Your task to perform on an android device: open app "ZOOM Cloud Meetings" (install if not already installed) Image 0: 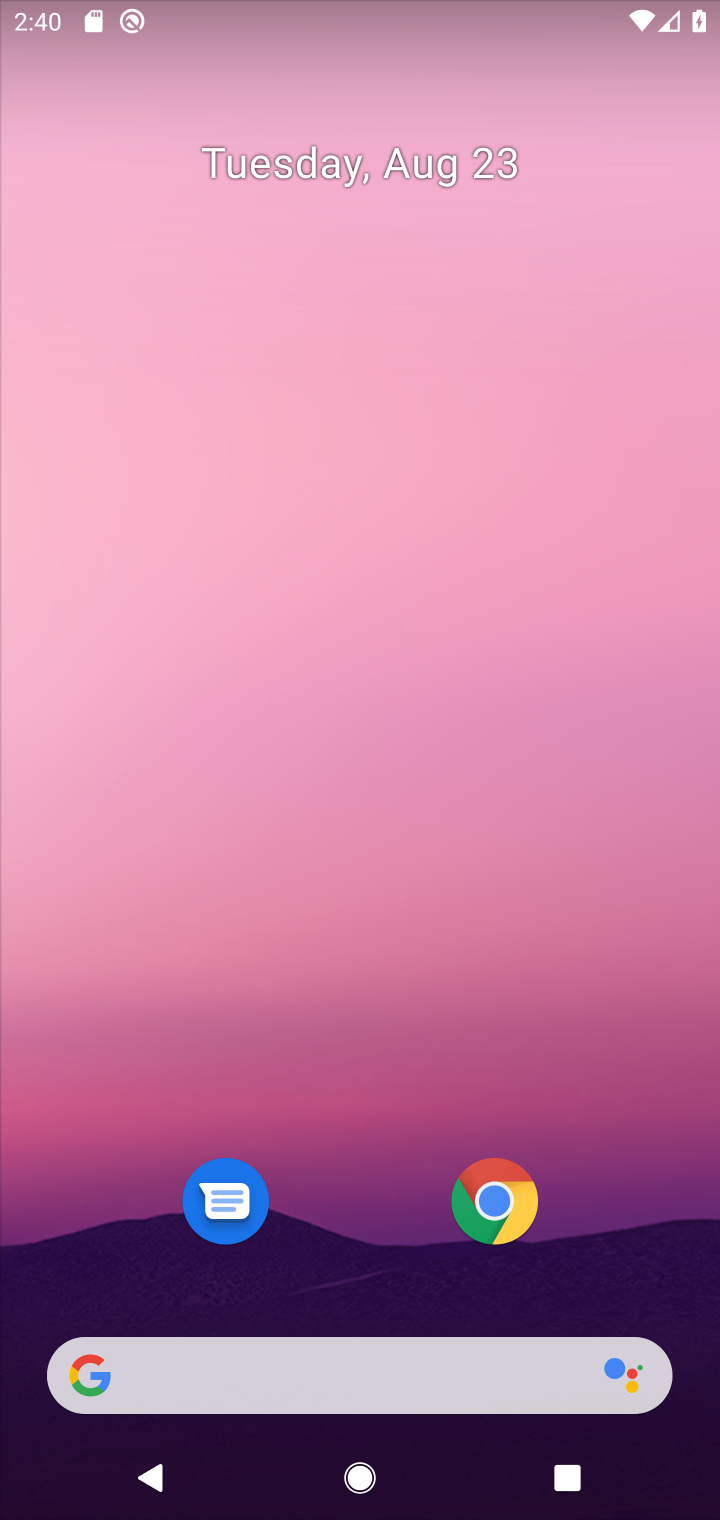
Step 0: drag from (642, 1084) to (580, 489)
Your task to perform on an android device: open app "ZOOM Cloud Meetings" (install if not already installed) Image 1: 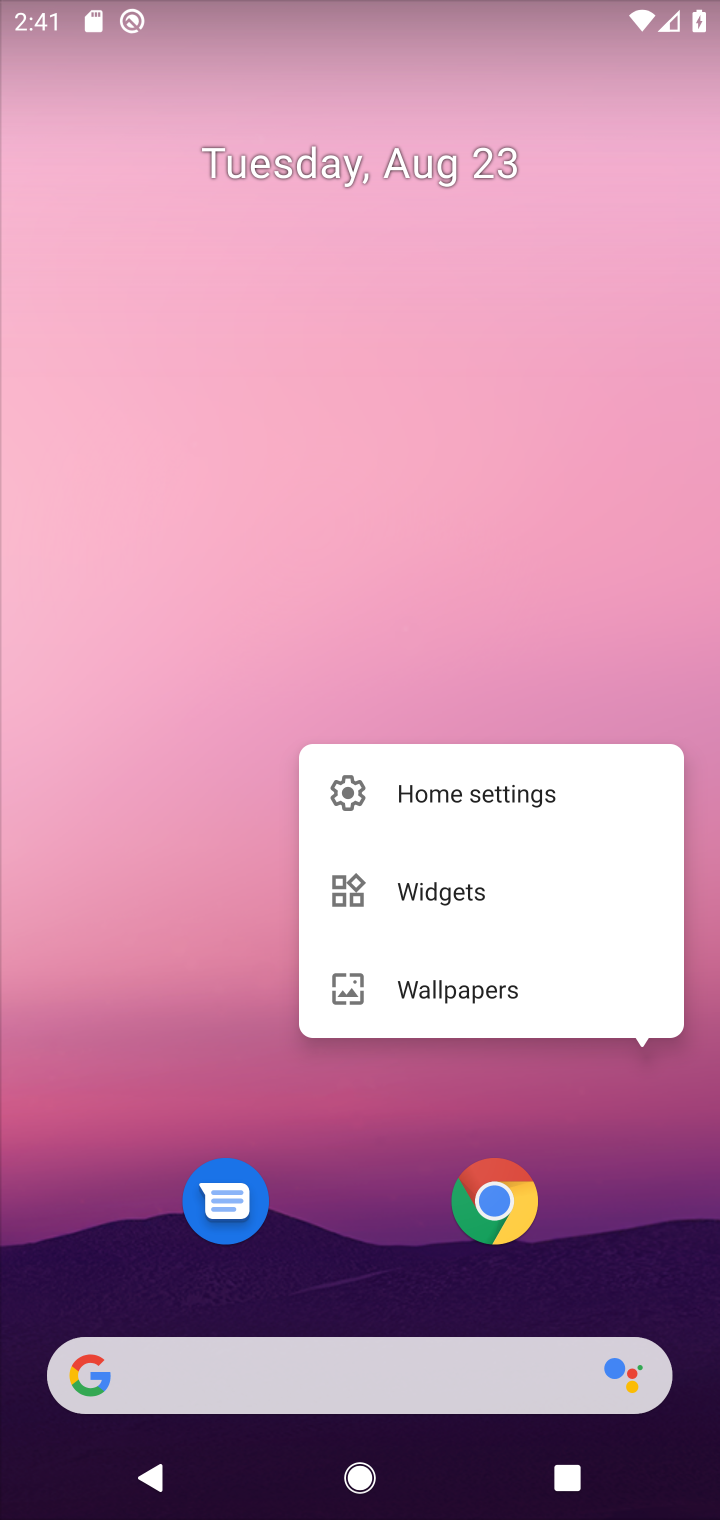
Step 1: drag from (648, 1274) to (498, 157)
Your task to perform on an android device: open app "ZOOM Cloud Meetings" (install if not already installed) Image 2: 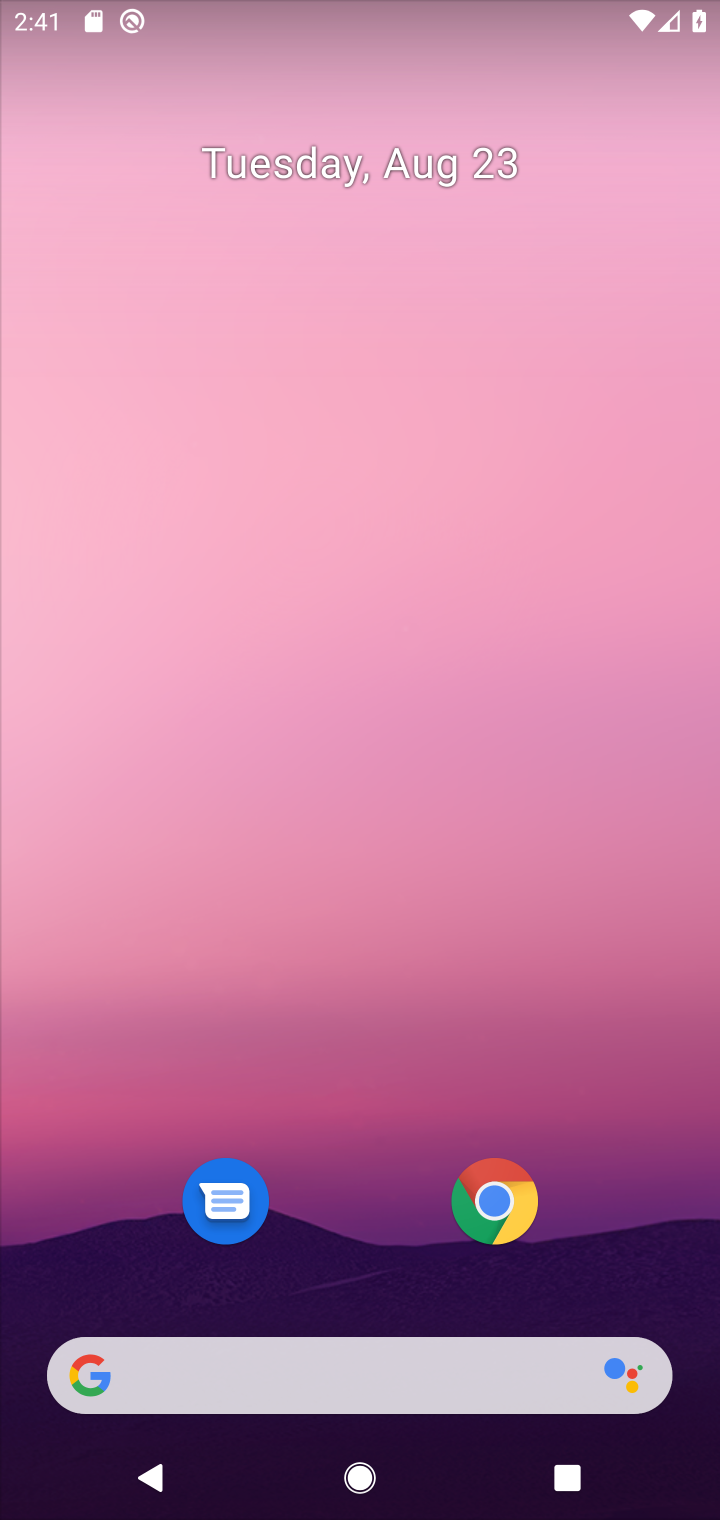
Step 2: drag from (662, 1224) to (647, 277)
Your task to perform on an android device: open app "ZOOM Cloud Meetings" (install if not already installed) Image 3: 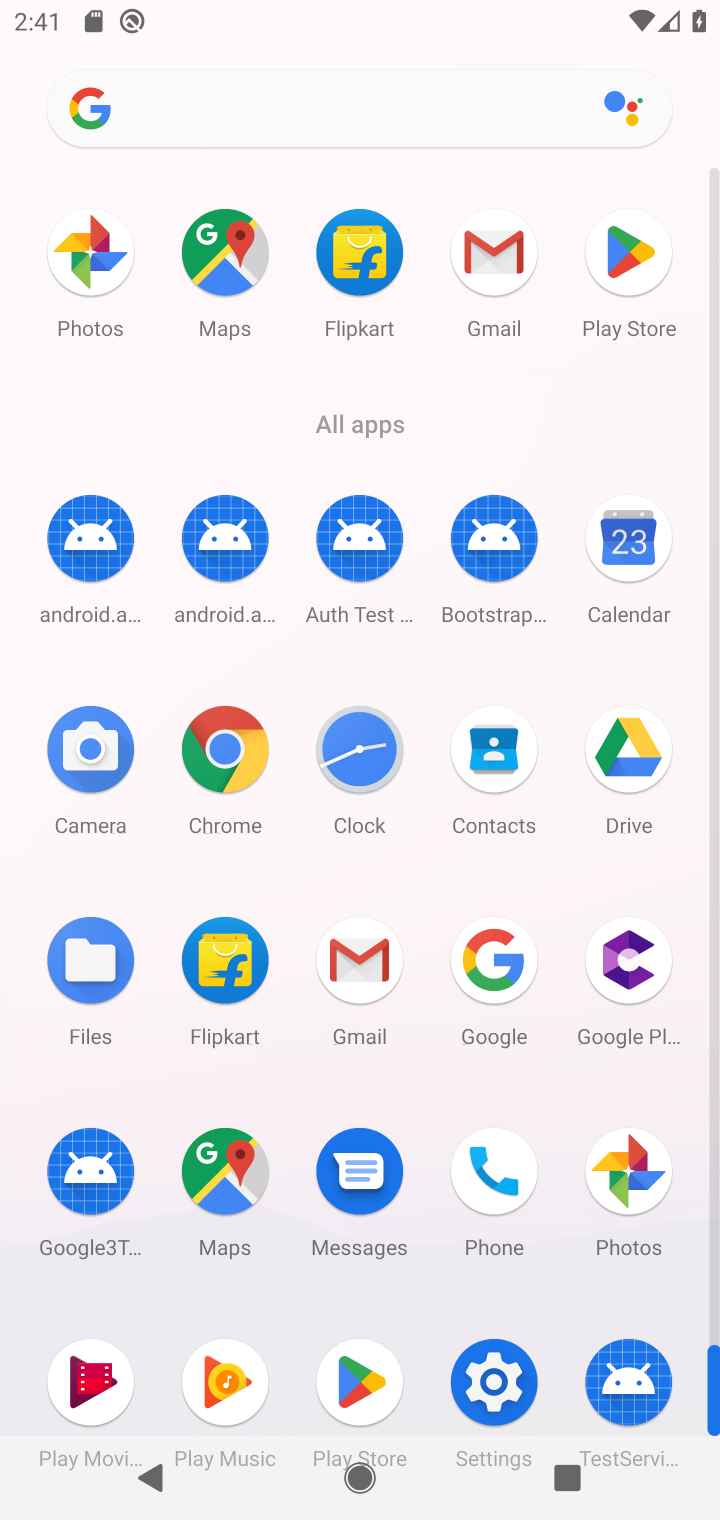
Step 3: click (355, 1381)
Your task to perform on an android device: open app "ZOOM Cloud Meetings" (install if not already installed) Image 4: 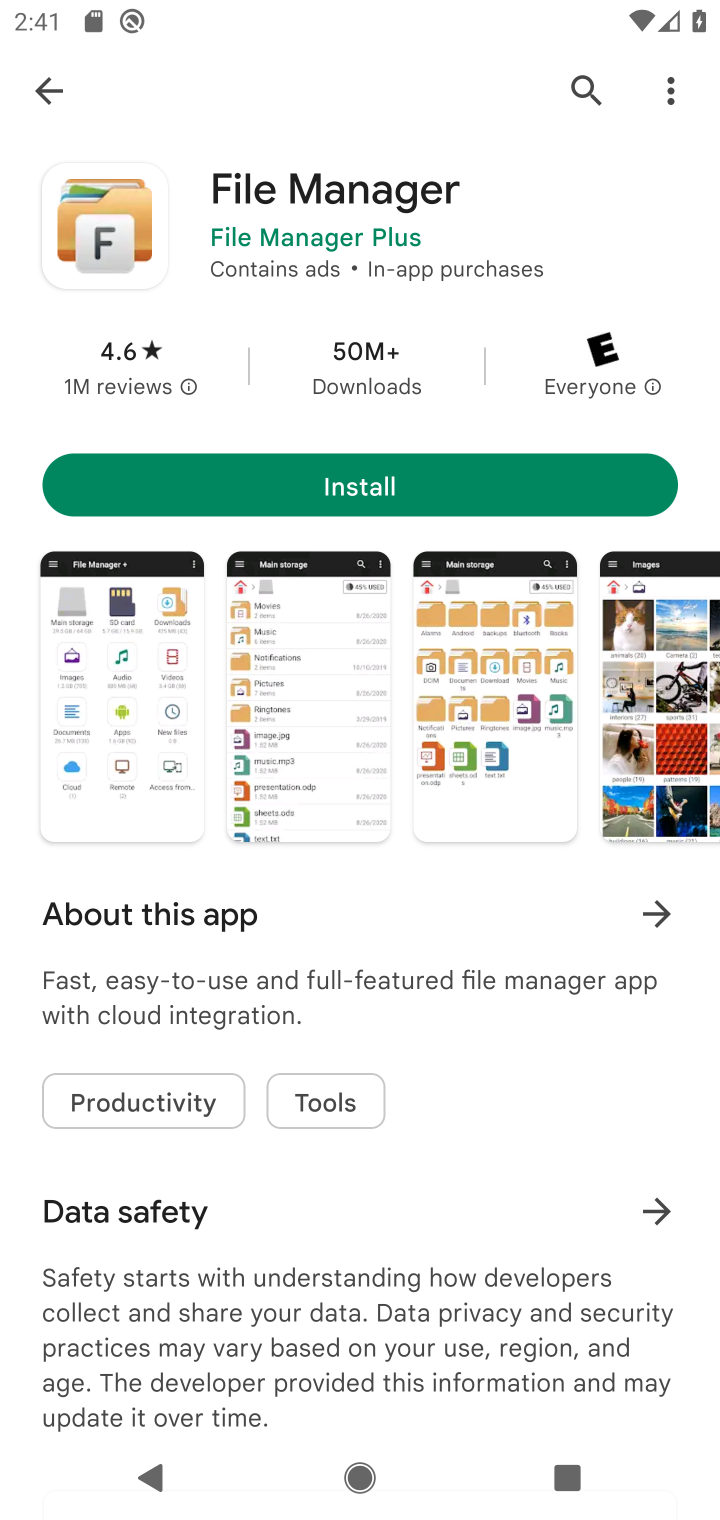
Step 4: click (577, 88)
Your task to perform on an android device: open app "ZOOM Cloud Meetings" (install if not already installed) Image 5: 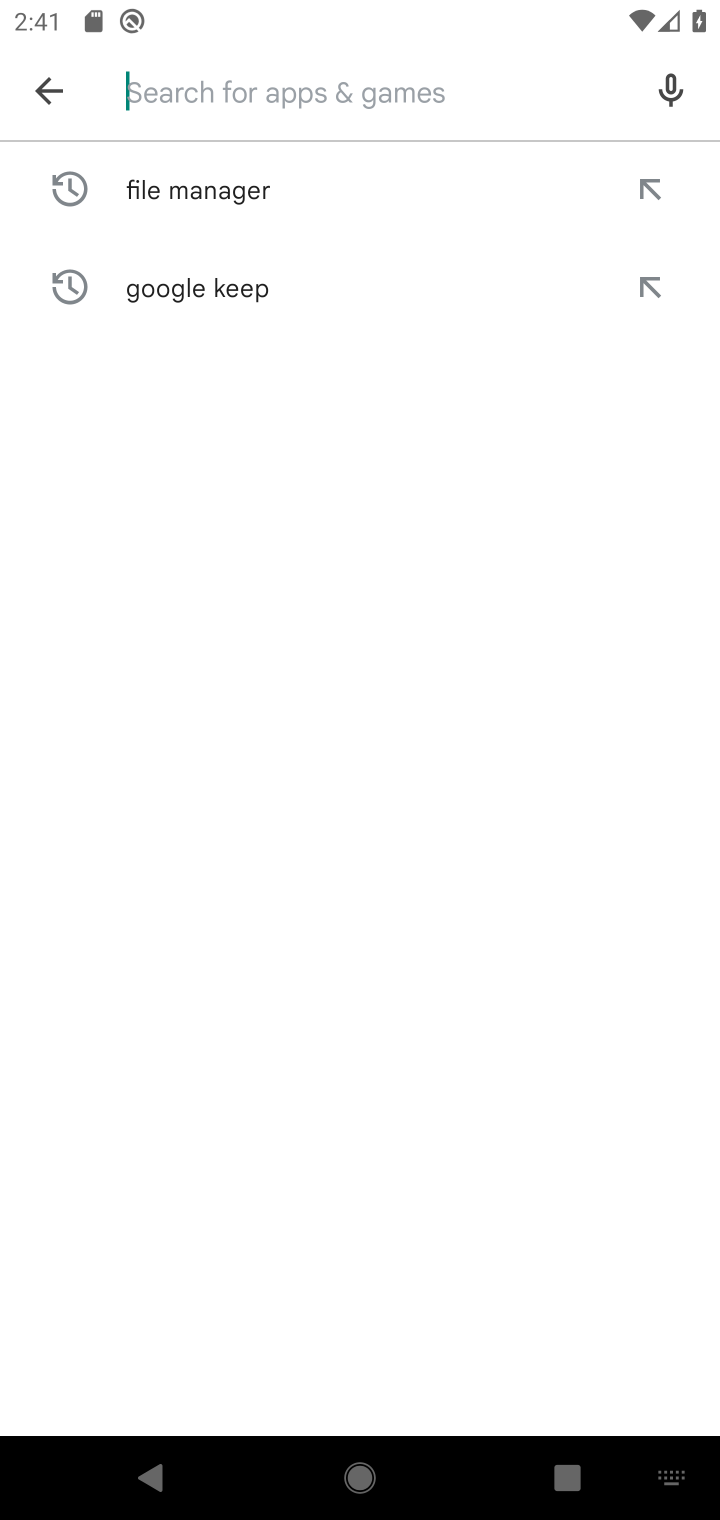
Step 5: type "ZOOM Cloud Meetings"
Your task to perform on an android device: open app "ZOOM Cloud Meetings" (install if not already installed) Image 6: 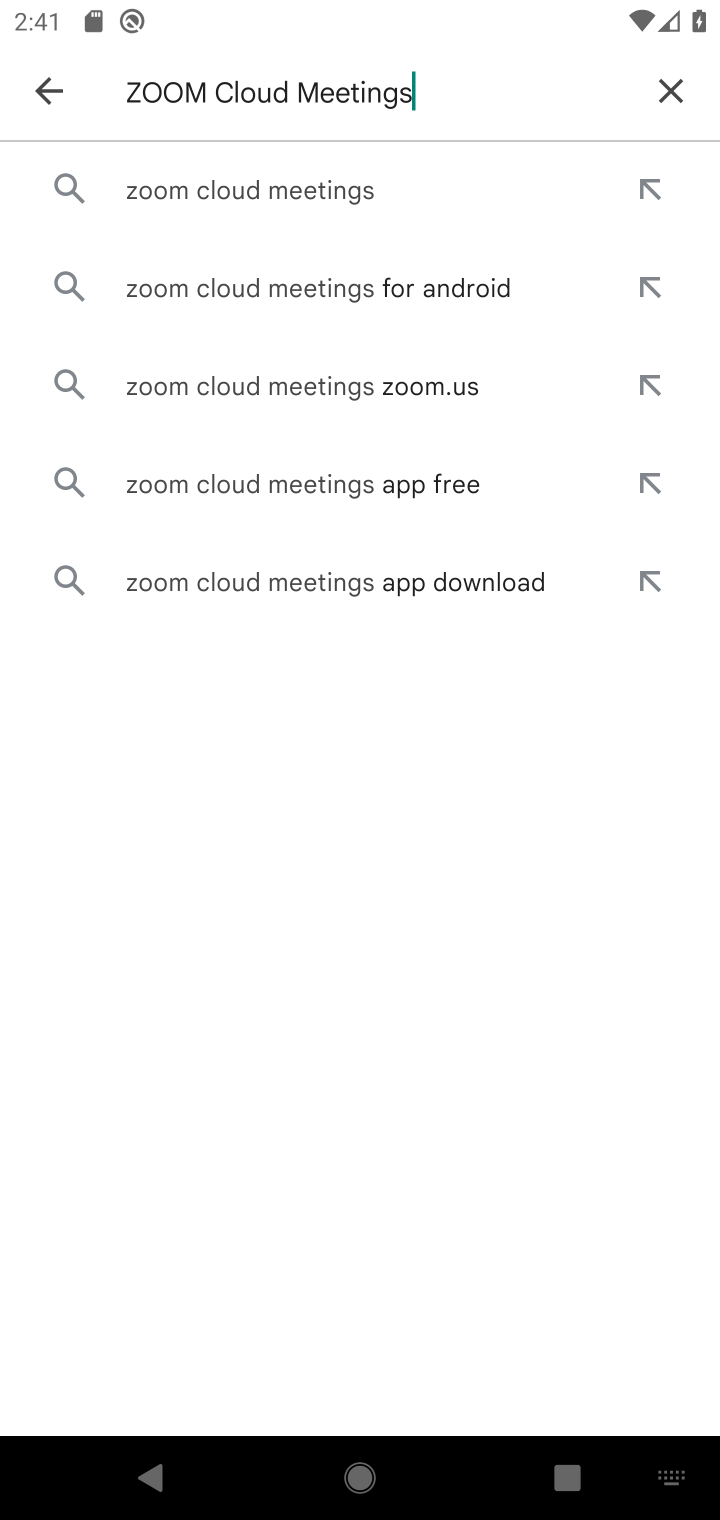
Step 6: click (282, 177)
Your task to perform on an android device: open app "ZOOM Cloud Meetings" (install if not already installed) Image 7: 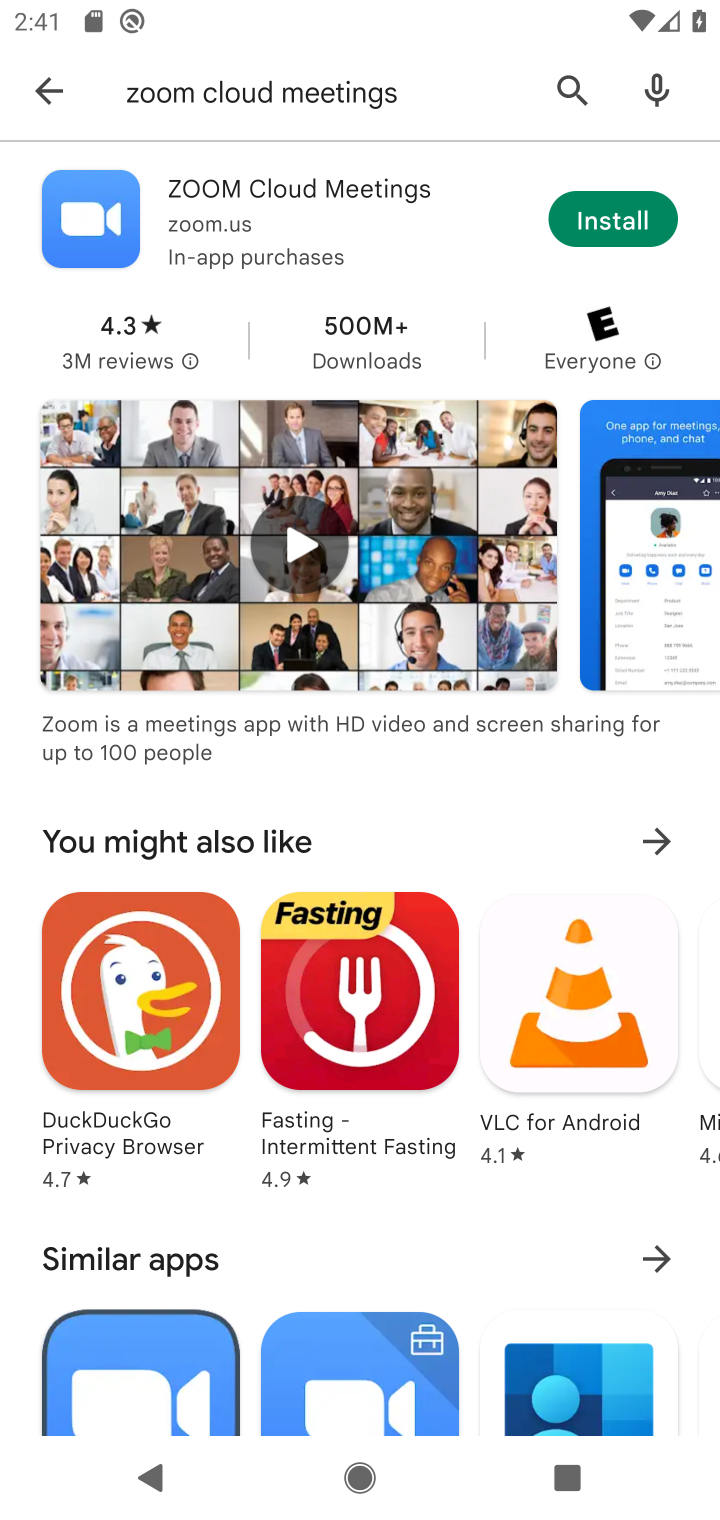
Step 7: click (602, 220)
Your task to perform on an android device: open app "ZOOM Cloud Meetings" (install if not already installed) Image 8: 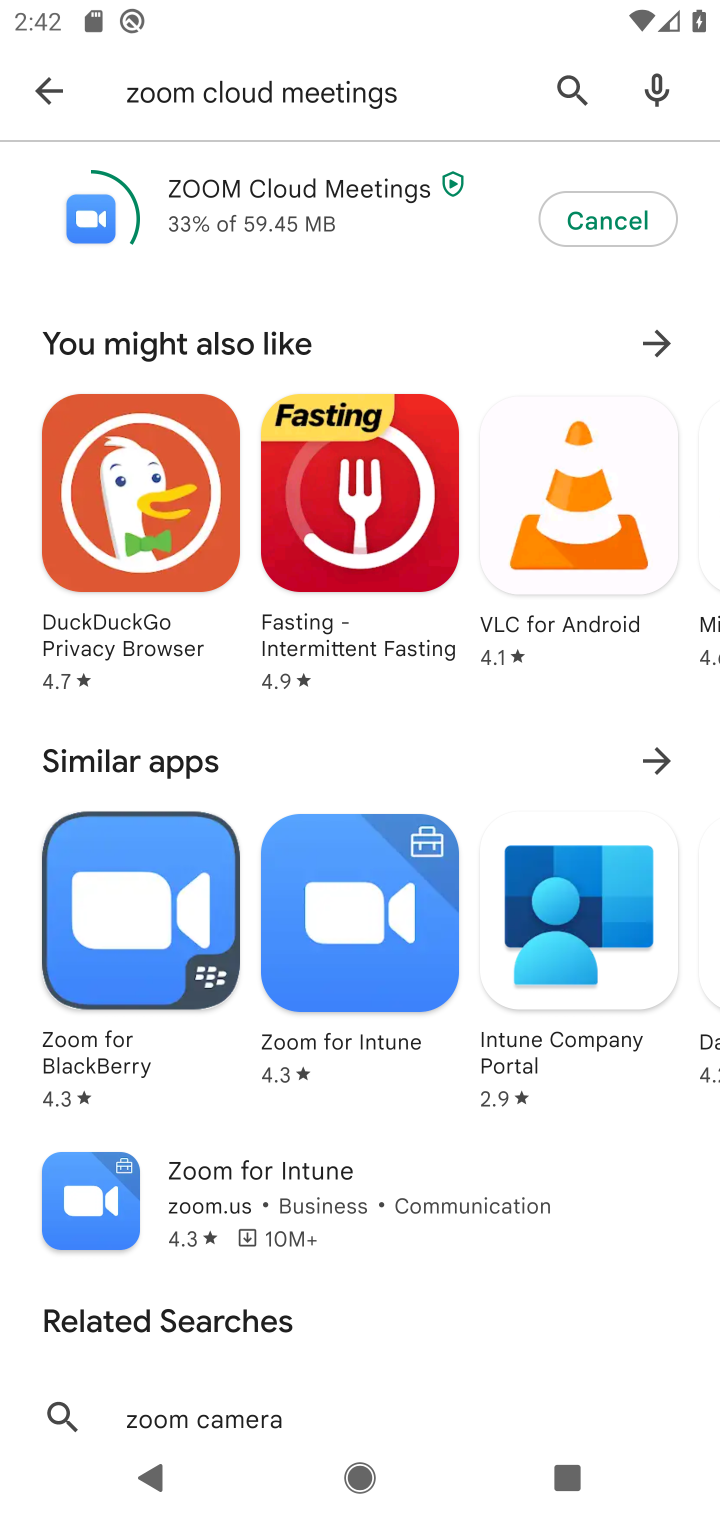
Step 8: click (244, 199)
Your task to perform on an android device: open app "ZOOM Cloud Meetings" (install if not already installed) Image 9: 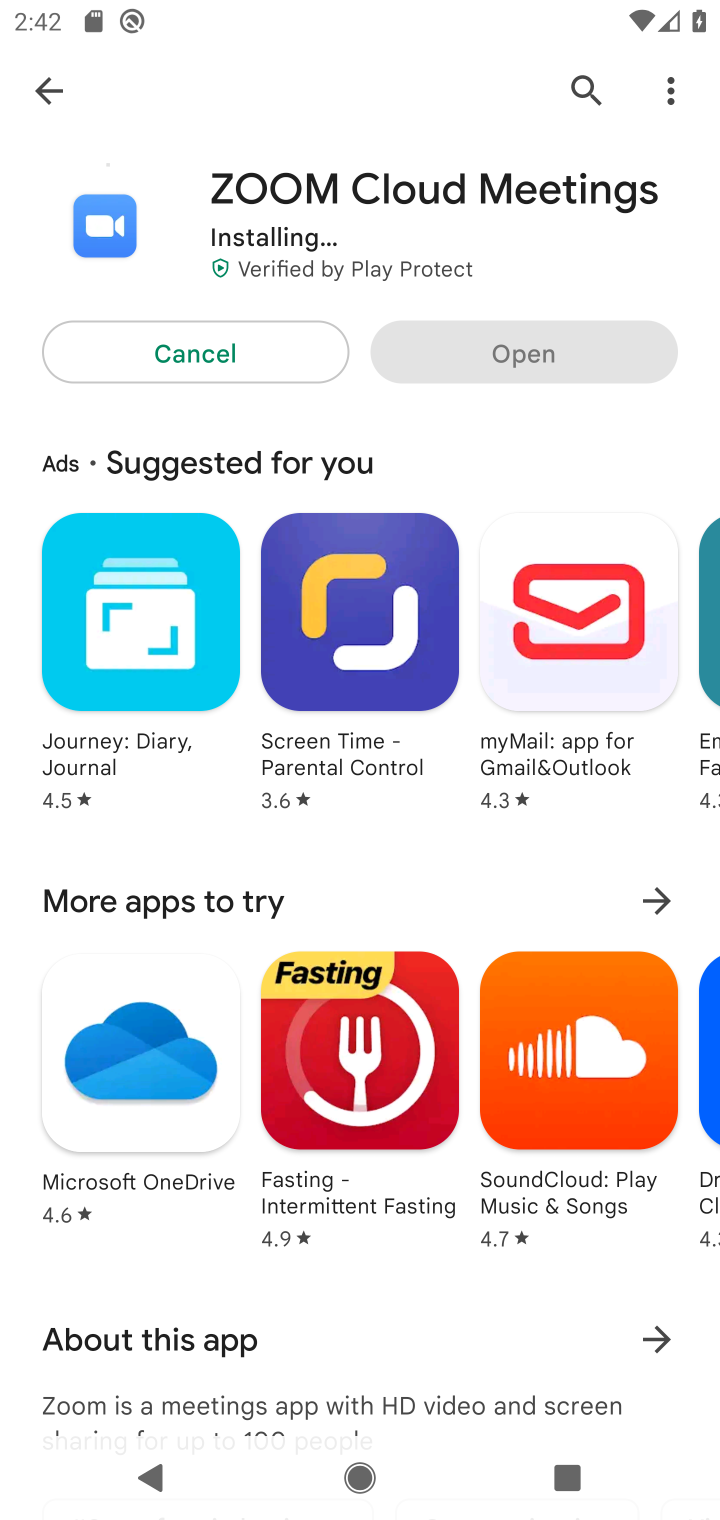
Step 9: click (373, 381)
Your task to perform on an android device: open app "ZOOM Cloud Meetings" (install if not already installed) Image 10: 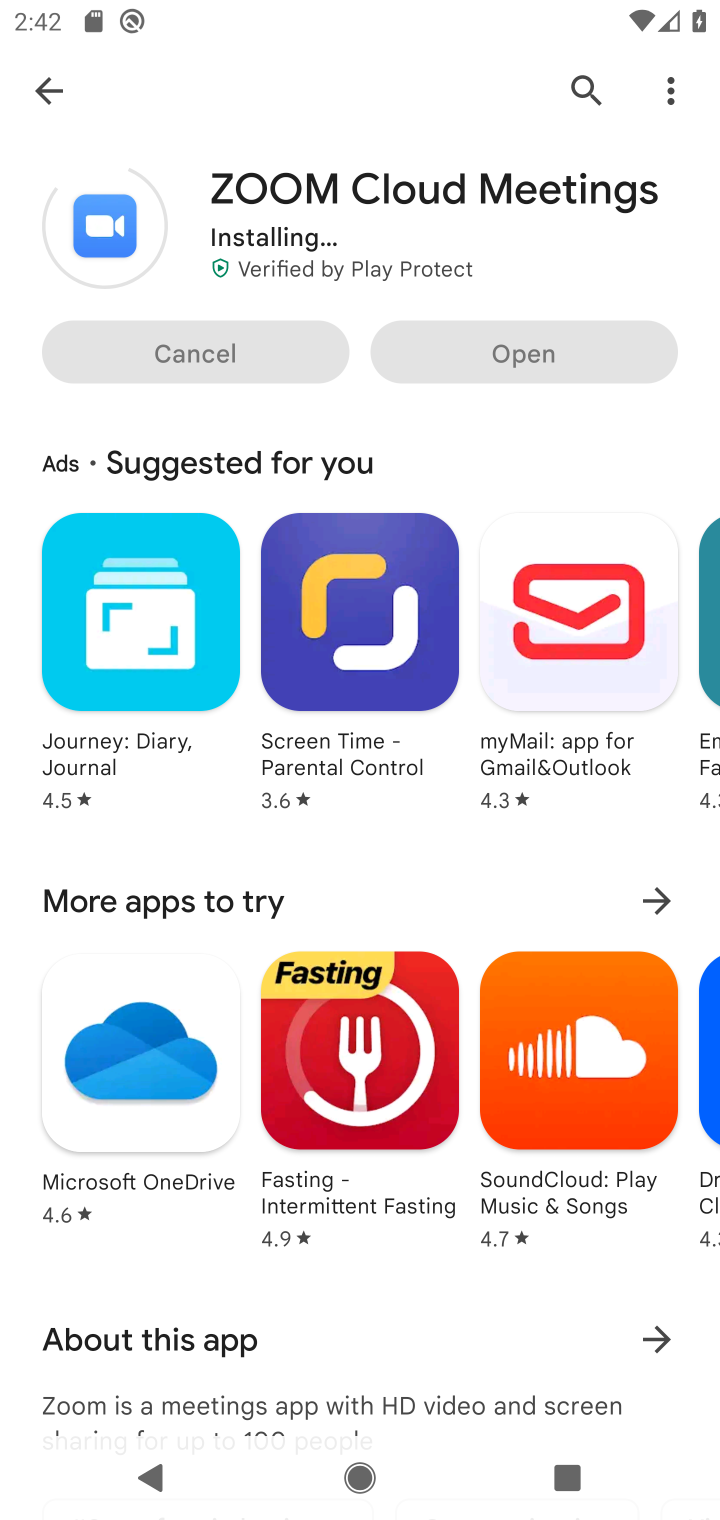
Step 10: drag from (364, 383) to (394, 534)
Your task to perform on an android device: open app "ZOOM Cloud Meetings" (install if not already installed) Image 11: 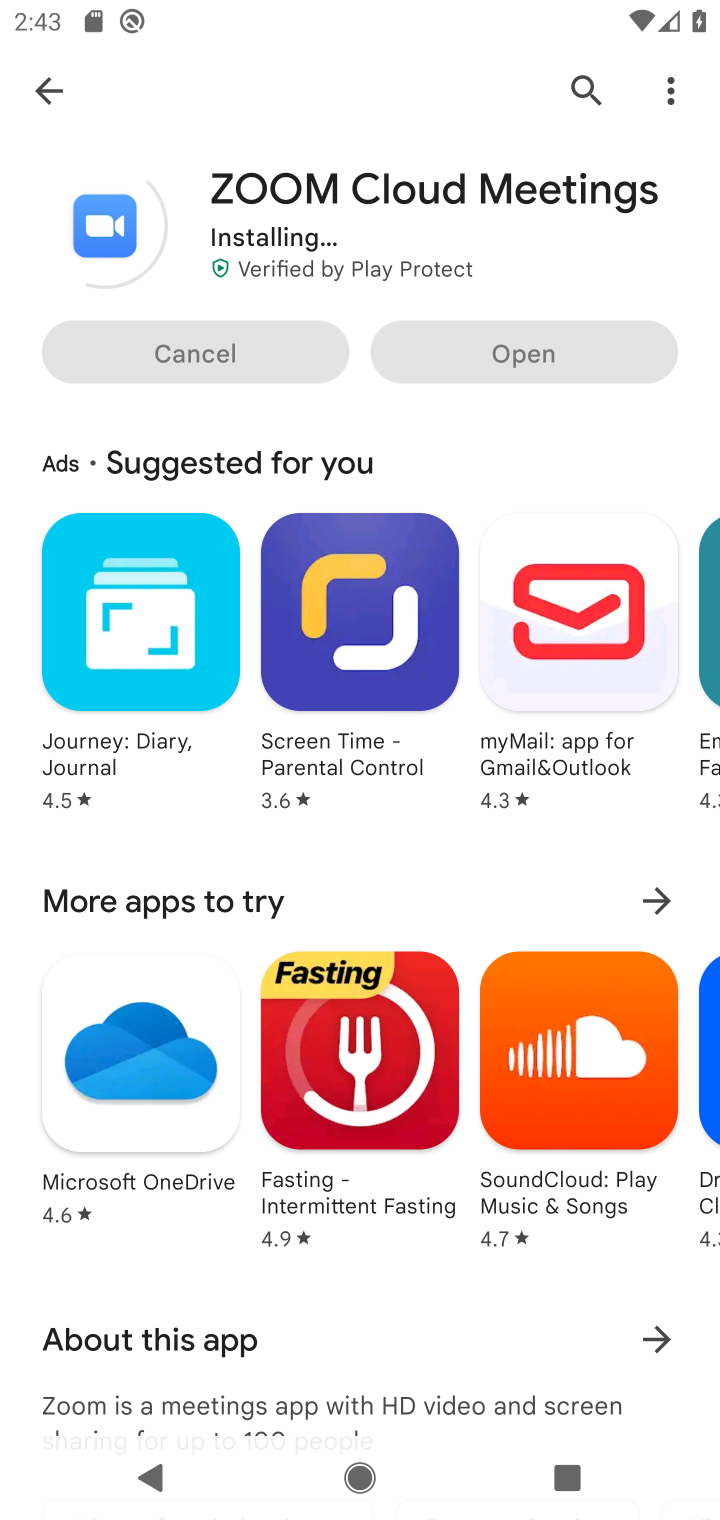
Step 11: drag from (401, 444) to (425, 548)
Your task to perform on an android device: open app "ZOOM Cloud Meetings" (install if not already installed) Image 12: 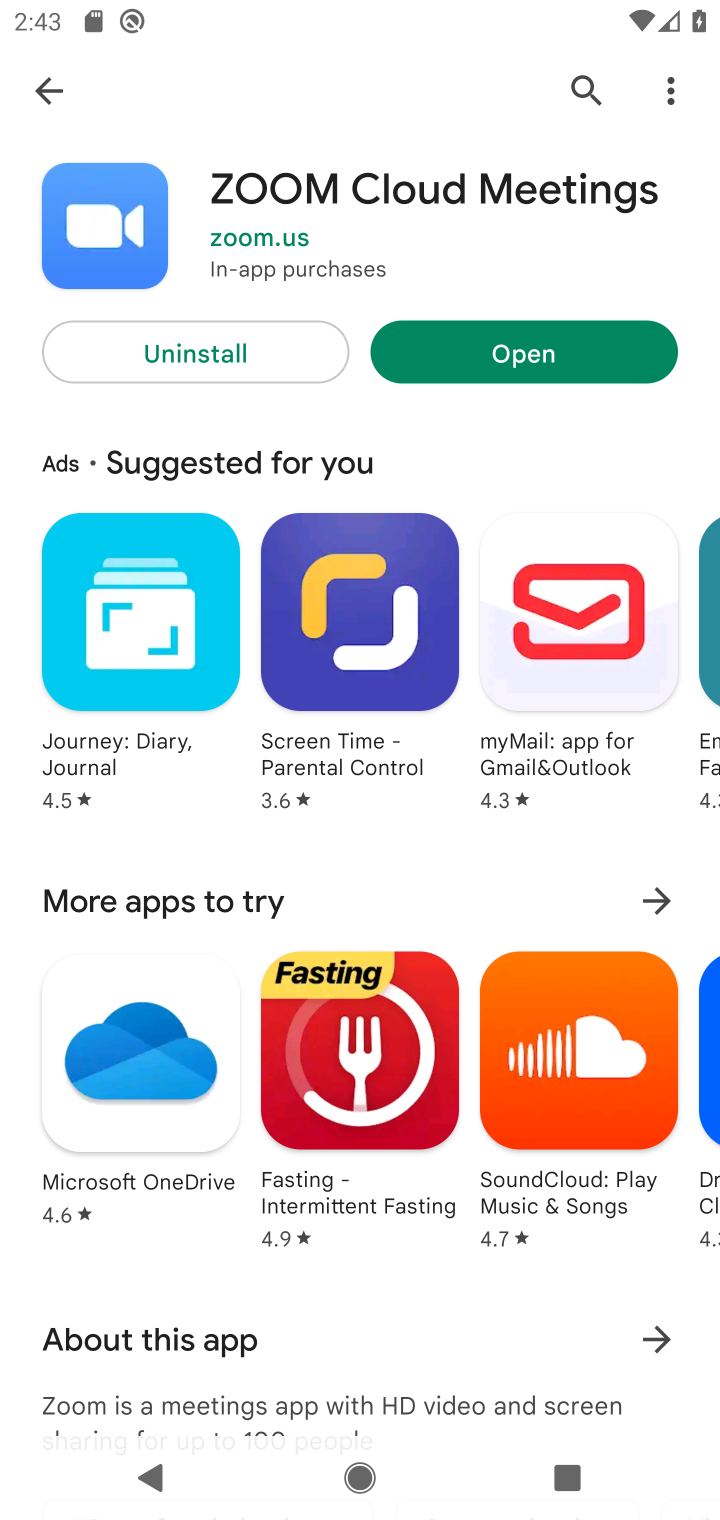
Step 12: click (503, 357)
Your task to perform on an android device: open app "ZOOM Cloud Meetings" (install if not already installed) Image 13: 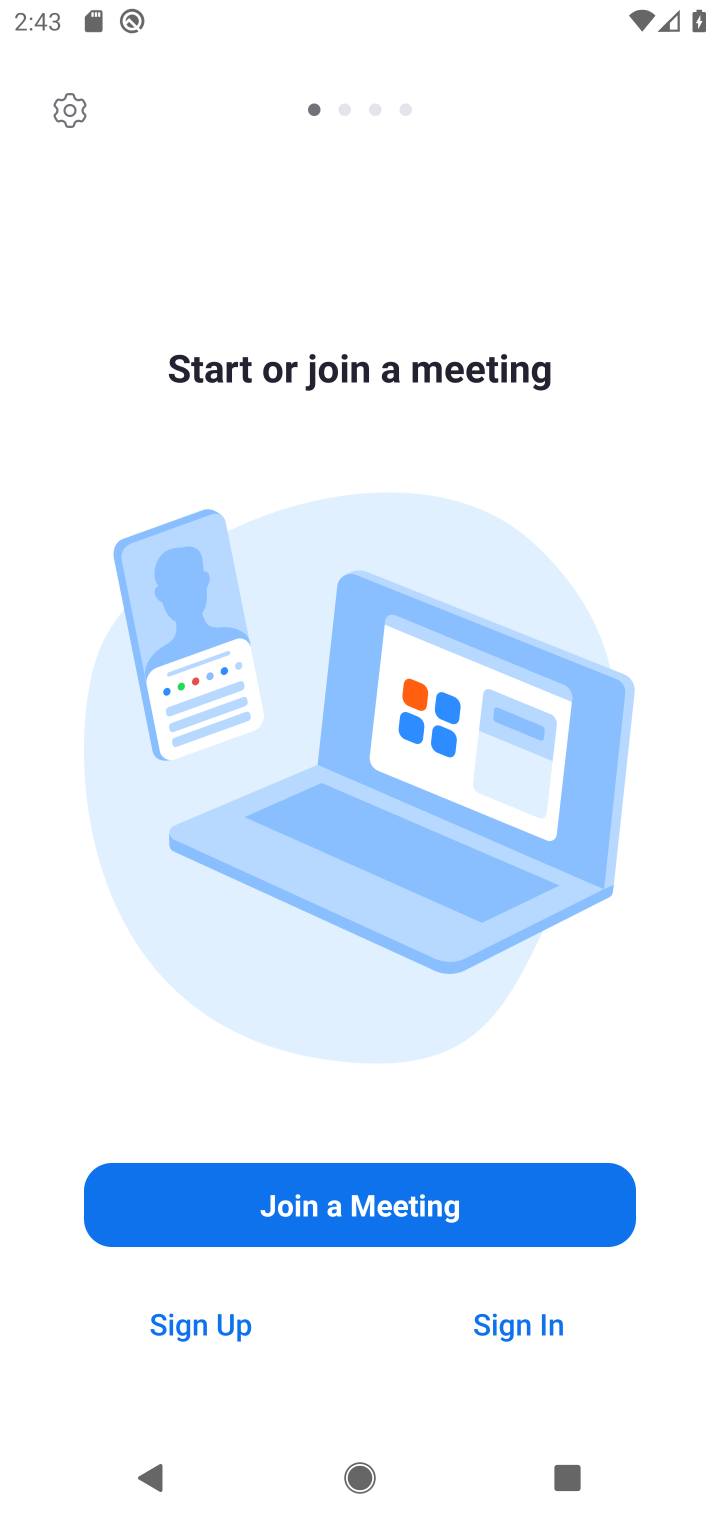
Step 13: task complete